Your task to perform on an android device: Go to network settings Image 0: 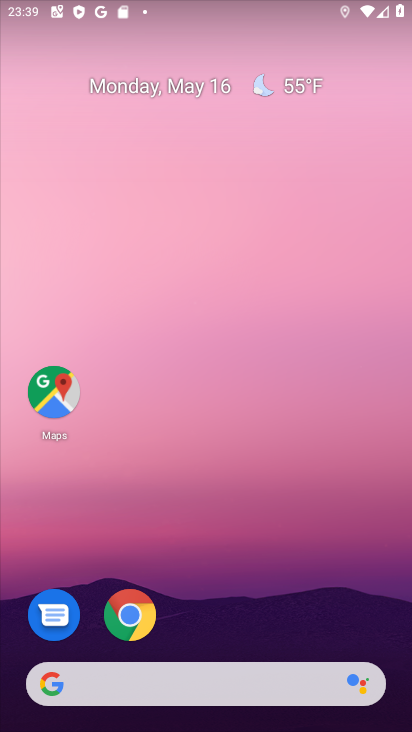
Step 0: drag from (224, 647) to (223, 135)
Your task to perform on an android device: Go to network settings Image 1: 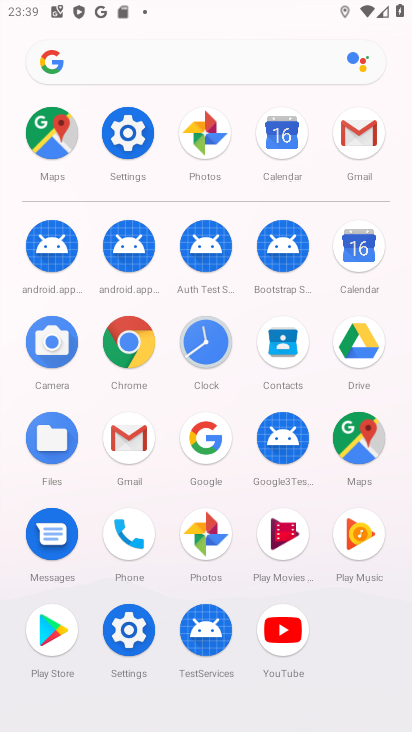
Step 1: click (144, 130)
Your task to perform on an android device: Go to network settings Image 2: 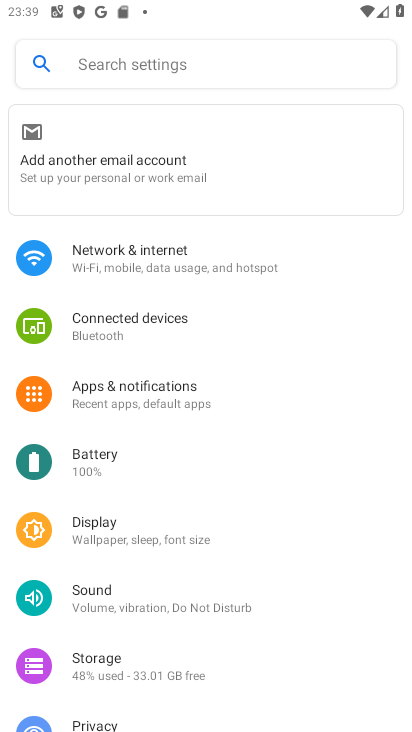
Step 2: click (150, 245)
Your task to perform on an android device: Go to network settings Image 3: 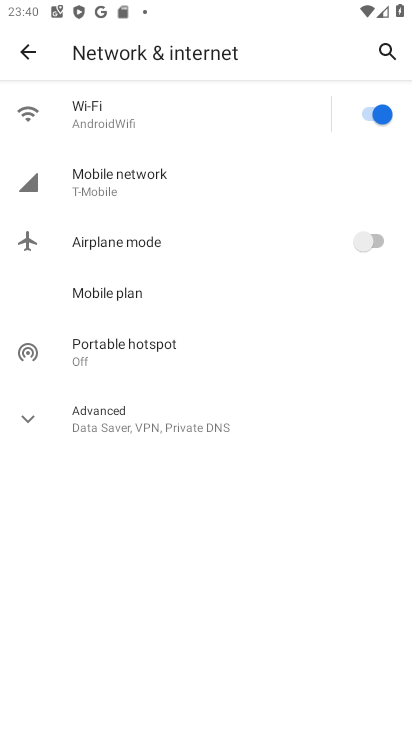
Step 3: click (185, 159)
Your task to perform on an android device: Go to network settings Image 4: 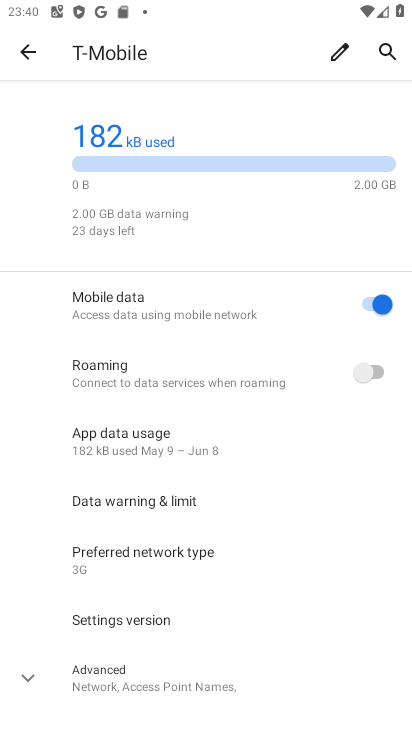
Step 4: task complete